Your task to perform on an android device: Open the map Image 0: 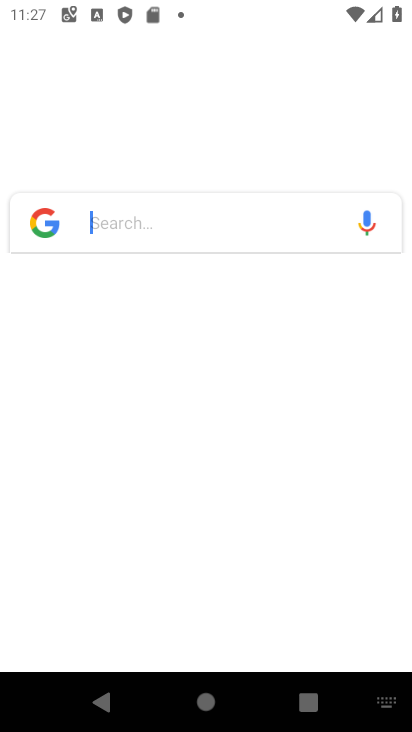
Step 0: click (324, 493)
Your task to perform on an android device: Open the map Image 1: 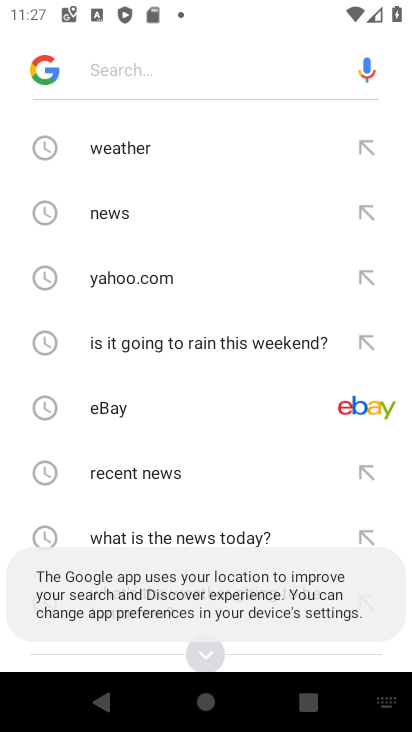
Step 1: press home button
Your task to perform on an android device: Open the map Image 2: 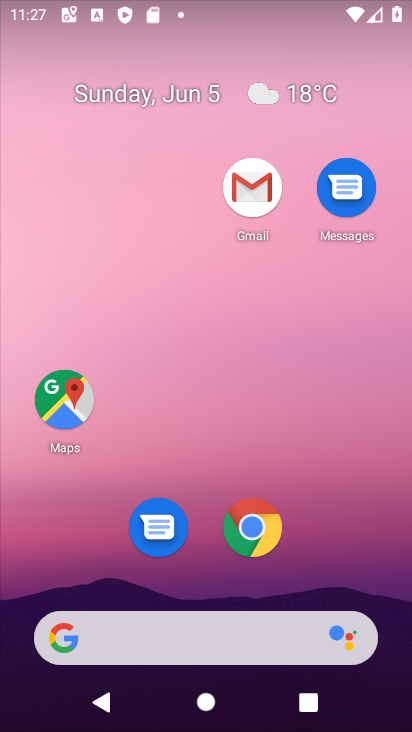
Step 2: click (54, 400)
Your task to perform on an android device: Open the map Image 3: 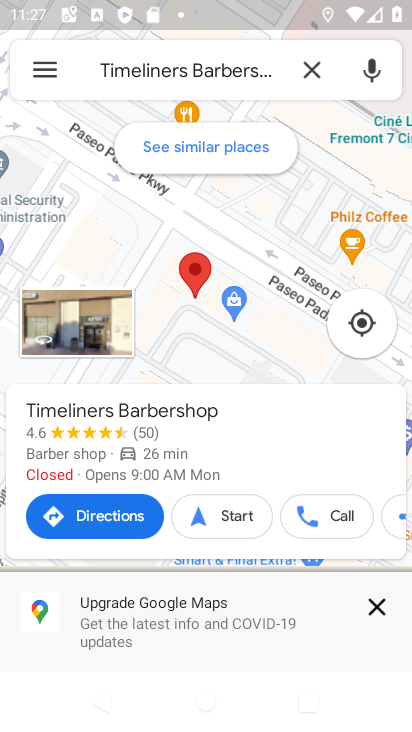
Step 3: task complete